Your task to perform on an android device: change the clock display to digital Image 0: 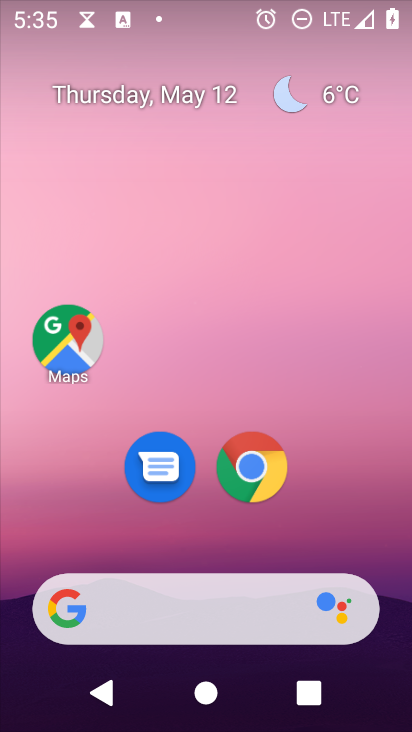
Step 0: drag from (241, 607) to (292, 7)
Your task to perform on an android device: change the clock display to digital Image 1: 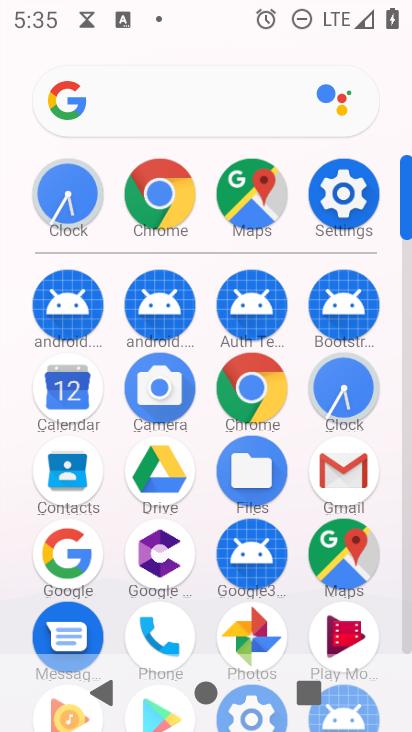
Step 1: click (331, 374)
Your task to perform on an android device: change the clock display to digital Image 2: 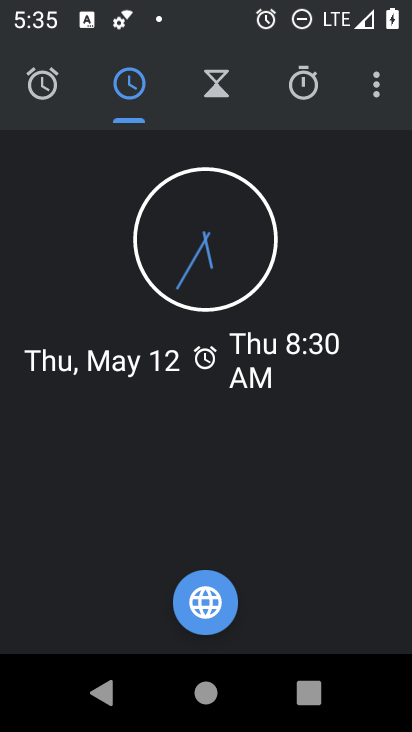
Step 2: click (372, 82)
Your task to perform on an android device: change the clock display to digital Image 3: 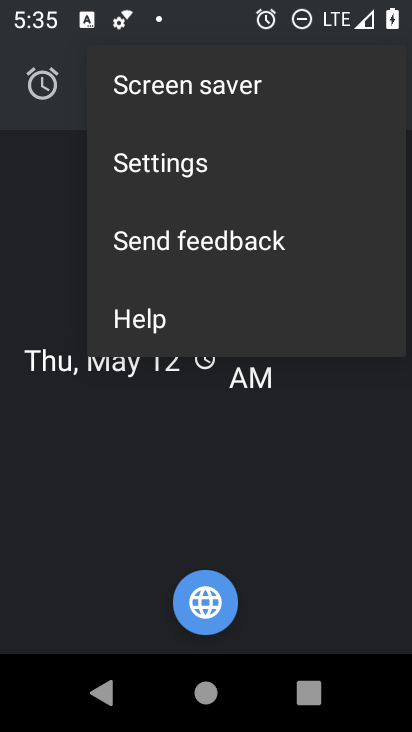
Step 3: click (257, 157)
Your task to perform on an android device: change the clock display to digital Image 4: 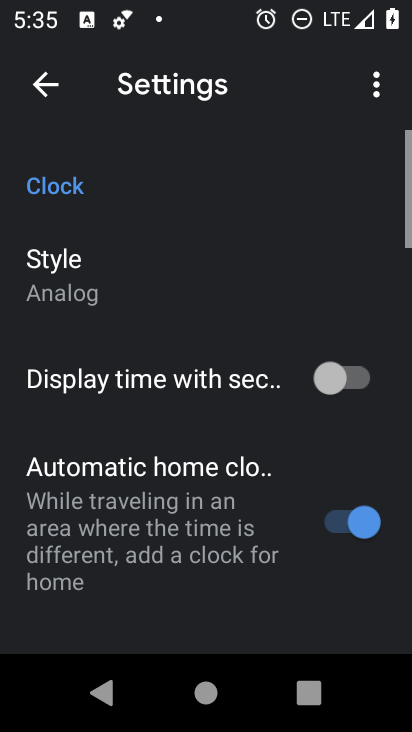
Step 4: click (127, 285)
Your task to perform on an android device: change the clock display to digital Image 5: 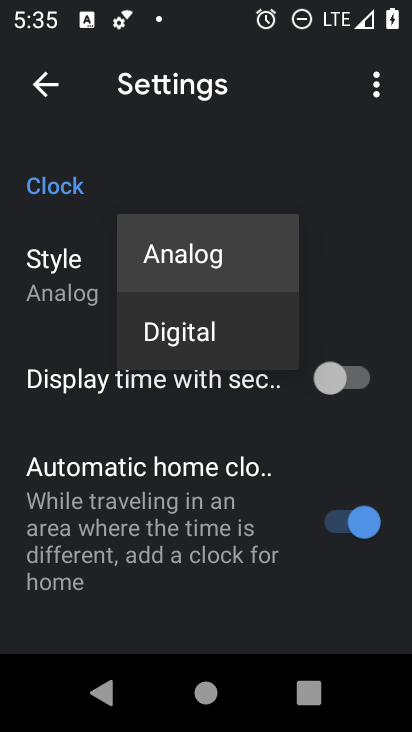
Step 5: click (180, 333)
Your task to perform on an android device: change the clock display to digital Image 6: 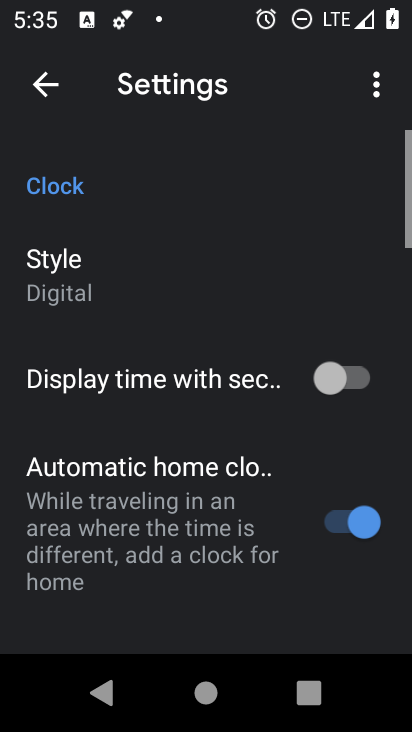
Step 6: task complete